Your task to perform on an android device: Open the stopwatch Image 0: 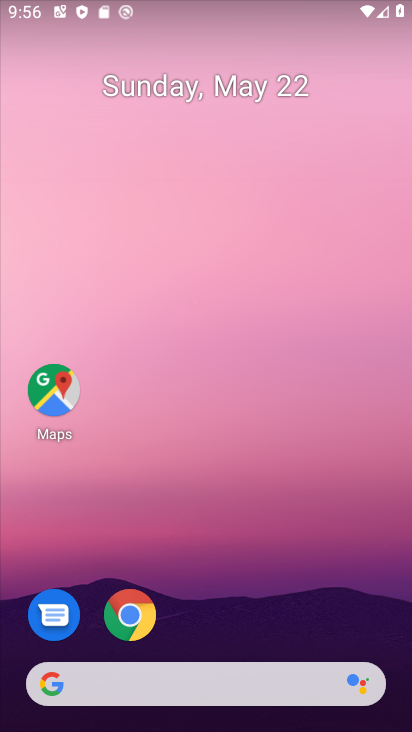
Step 0: drag from (237, 562) to (212, 26)
Your task to perform on an android device: Open the stopwatch Image 1: 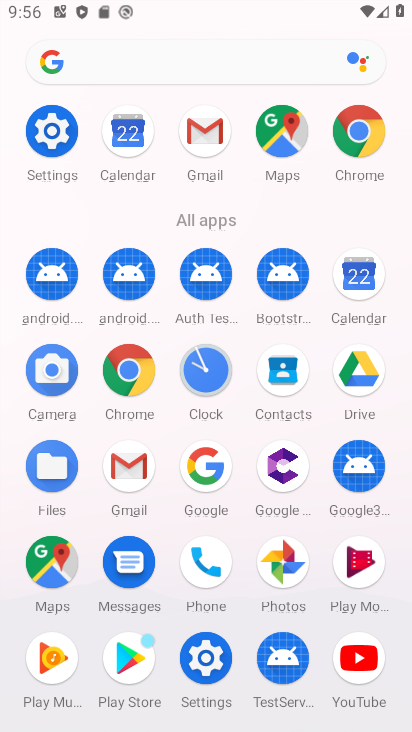
Step 1: click (205, 368)
Your task to perform on an android device: Open the stopwatch Image 2: 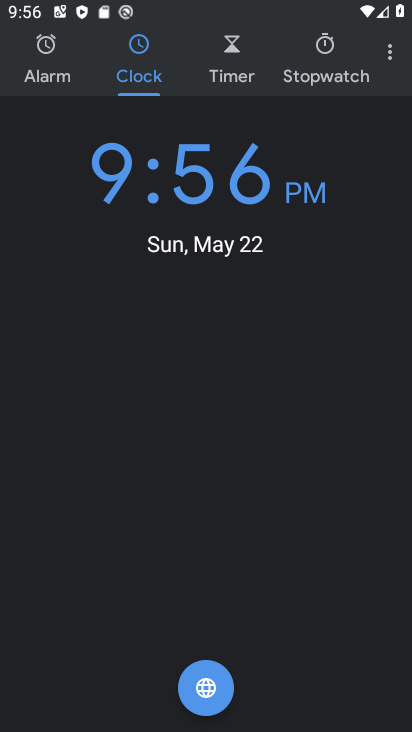
Step 2: click (390, 49)
Your task to perform on an android device: Open the stopwatch Image 3: 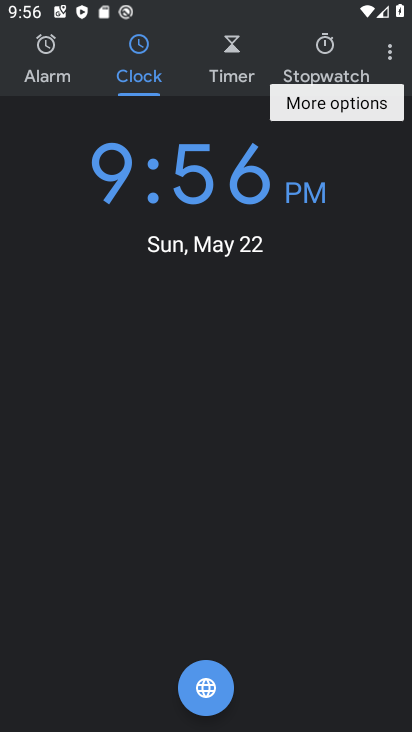
Step 3: click (326, 50)
Your task to perform on an android device: Open the stopwatch Image 4: 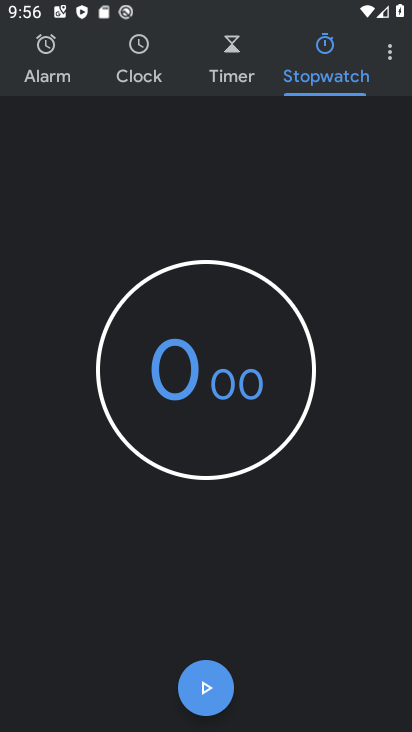
Step 4: task complete